Your task to perform on an android device: Open battery settings Image 0: 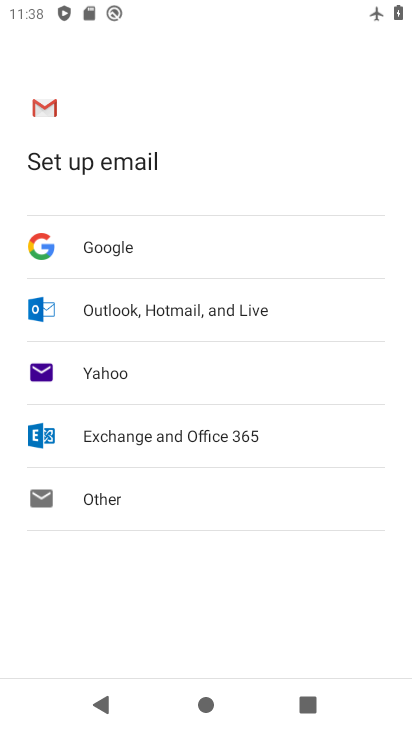
Step 0: press home button
Your task to perform on an android device: Open battery settings Image 1: 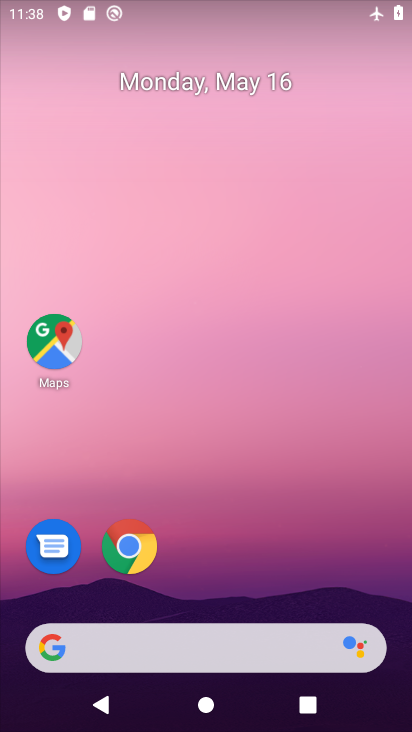
Step 1: drag from (399, 645) to (326, 157)
Your task to perform on an android device: Open battery settings Image 2: 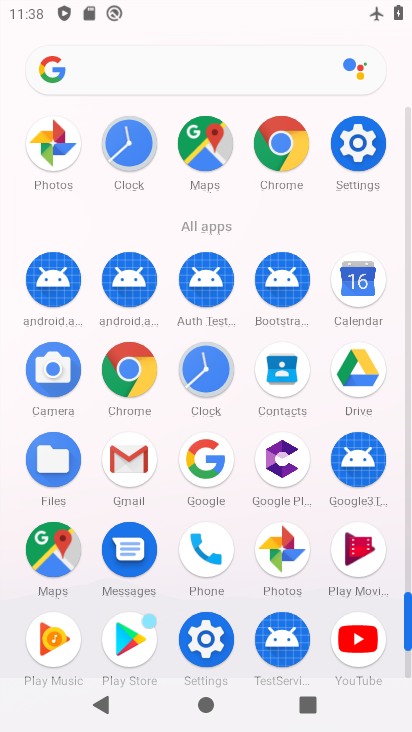
Step 2: click (409, 671)
Your task to perform on an android device: Open battery settings Image 3: 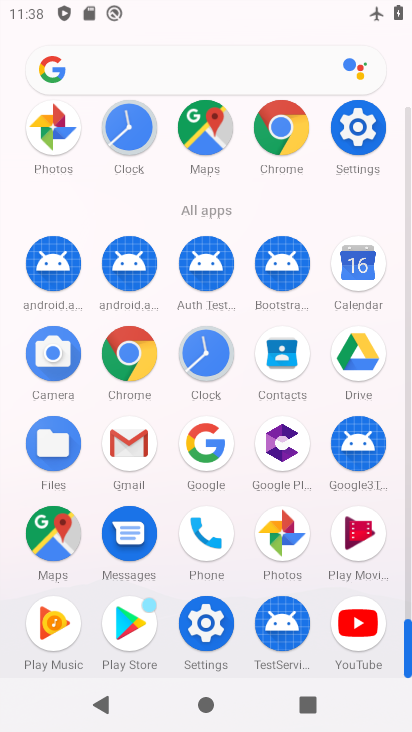
Step 3: click (205, 620)
Your task to perform on an android device: Open battery settings Image 4: 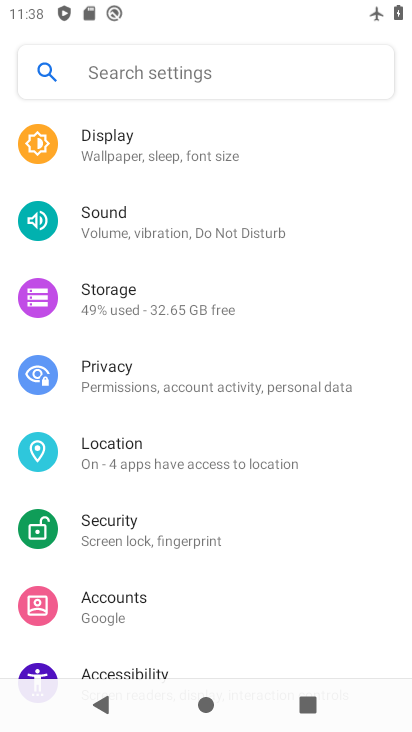
Step 4: drag from (349, 149) to (355, 564)
Your task to perform on an android device: Open battery settings Image 5: 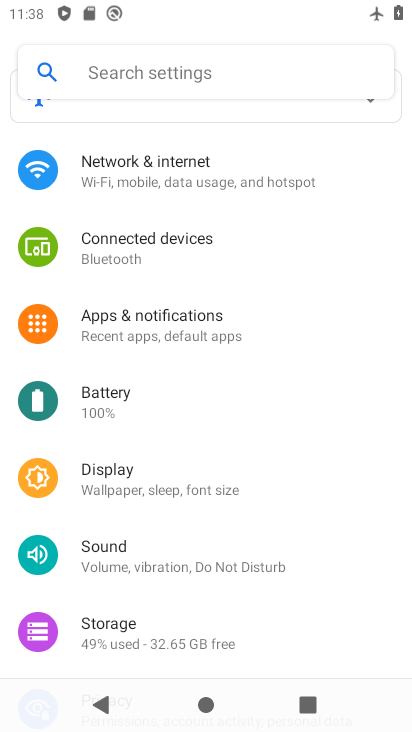
Step 5: click (96, 391)
Your task to perform on an android device: Open battery settings Image 6: 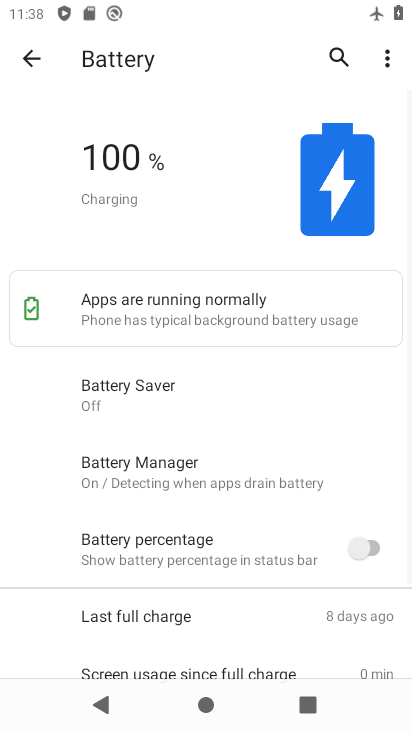
Step 6: task complete